Your task to perform on an android device: toggle show notifications on the lock screen Image 0: 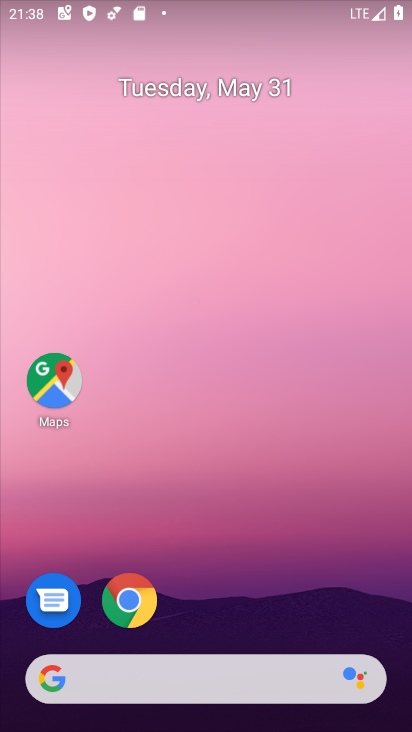
Step 0: drag from (220, 546) to (232, 81)
Your task to perform on an android device: toggle show notifications on the lock screen Image 1: 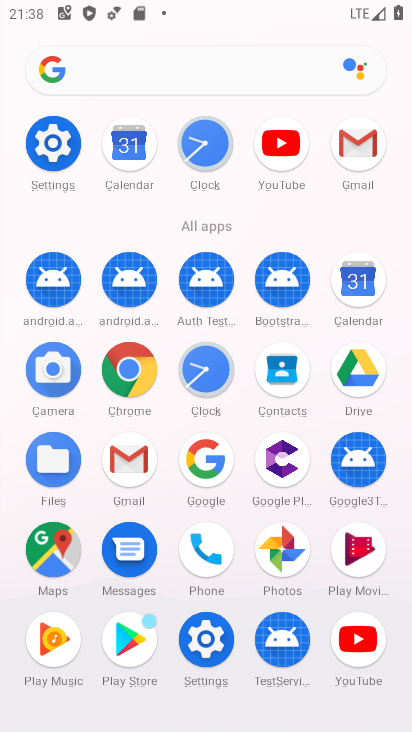
Step 1: click (43, 137)
Your task to perform on an android device: toggle show notifications on the lock screen Image 2: 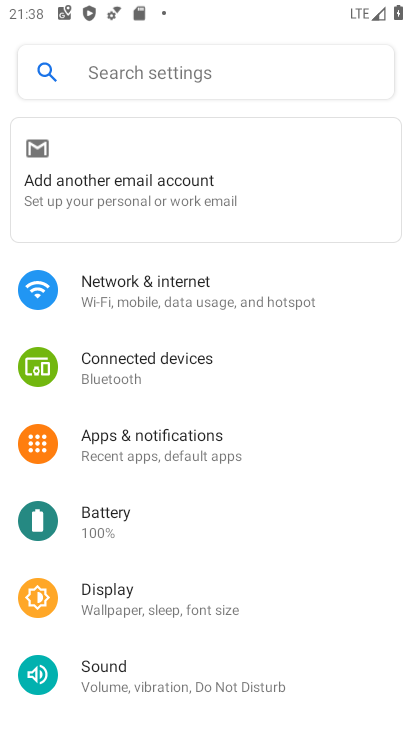
Step 2: click (170, 460)
Your task to perform on an android device: toggle show notifications on the lock screen Image 3: 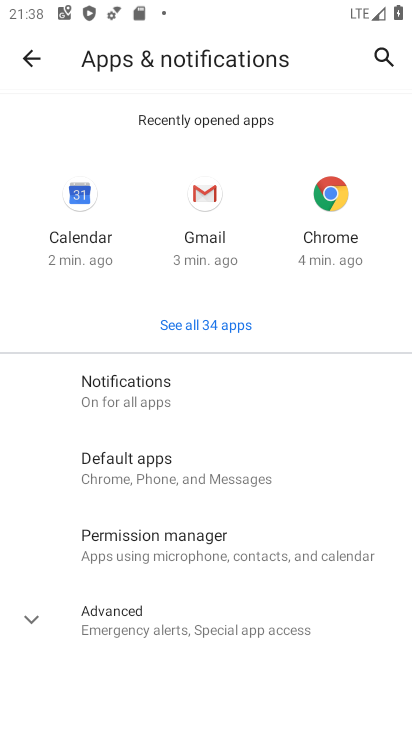
Step 3: click (122, 377)
Your task to perform on an android device: toggle show notifications on the lock screen Image 4: 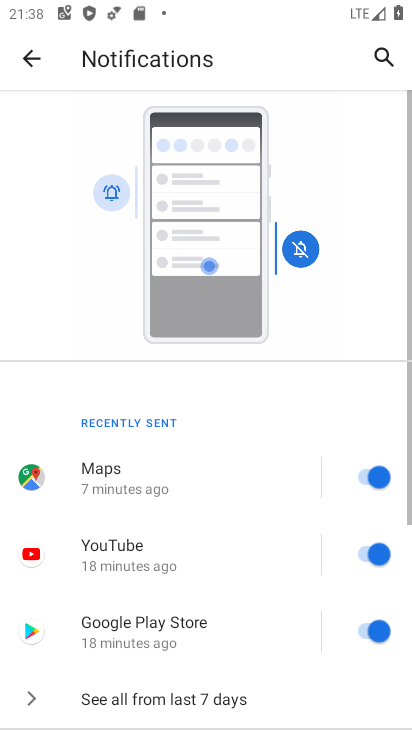
Step 4: drag from (167, 678) to (234, 150)
Your task to perform on an android device: toggle show notifications on the lock screen Image 5: 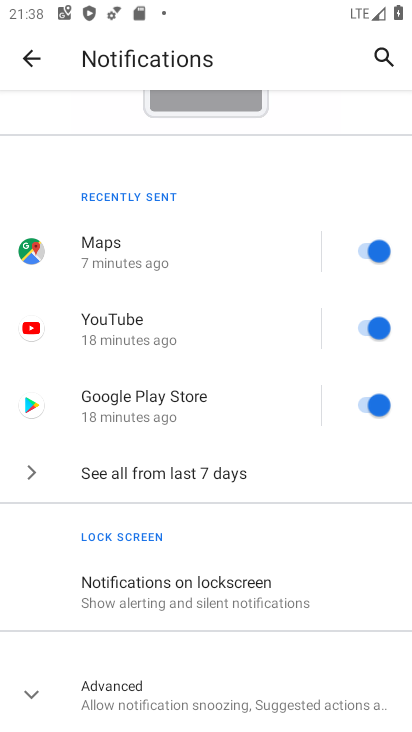
Step 5: click (154, 598)
Your task to perform on an android device: toggle show notifications on the lock screen Image 6: 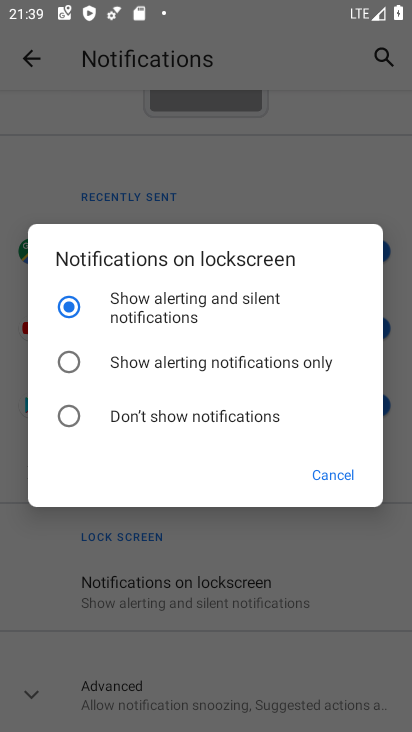
Step 6: task complete